Your task to perform on an android device: check data usage Image 0: 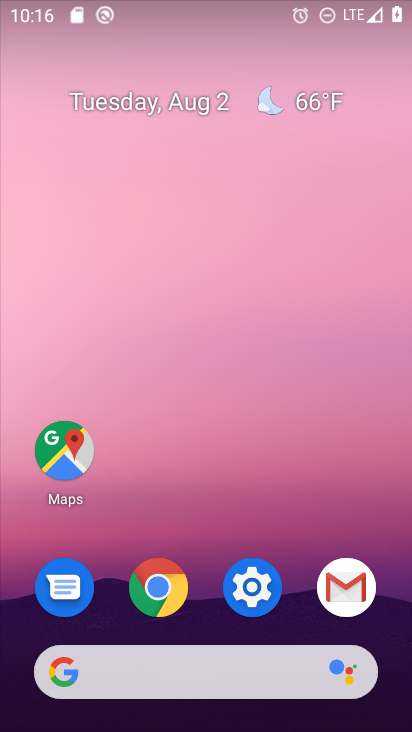
Step 0: click (245, 598)
Your task to perform on an android device: check data usage Image 1: 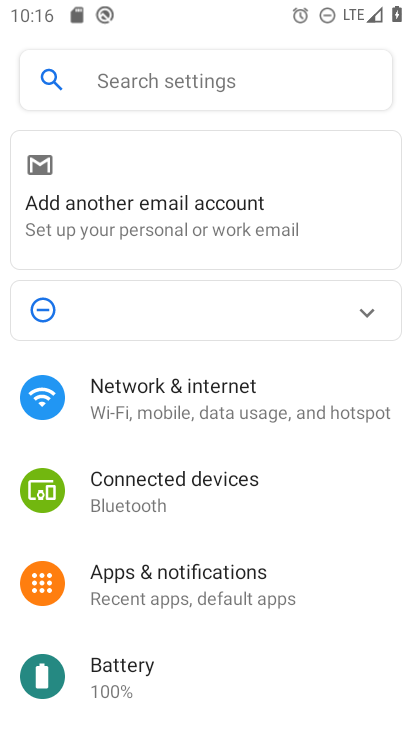
Step 1: click (108, 90)
Your task to perform on an android device: check data usage Image 2: 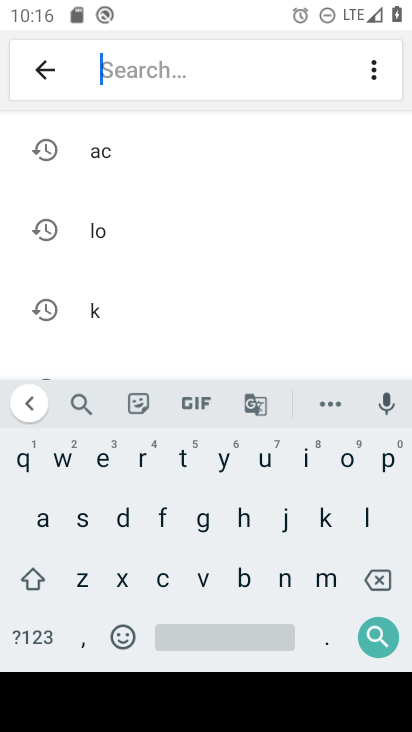
Step 2: click (125, 519)
Your task to perform on an android device: check data usage Image 3: 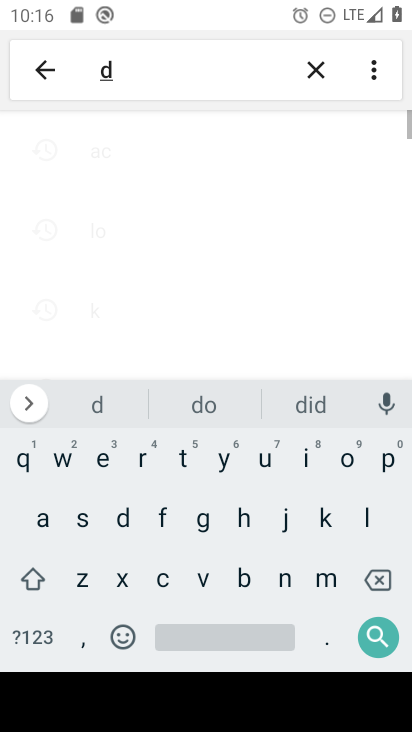
Step 3: click (40, 516)
Your task to perform on an android device: check data usage Image 4: 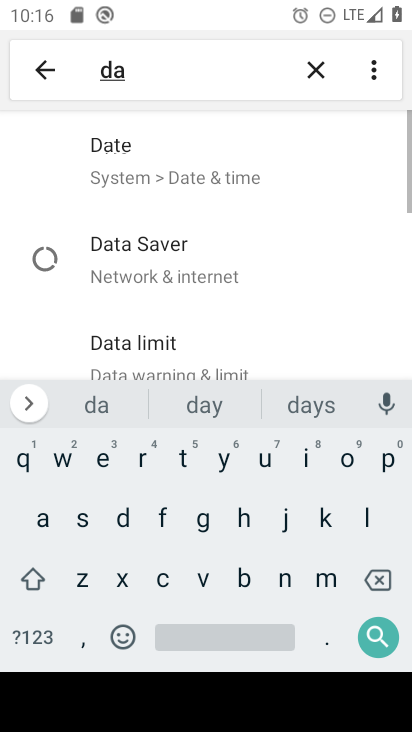
Step 4: click (185, 461)
Your task to perform on an android device: check data usage Image 5: 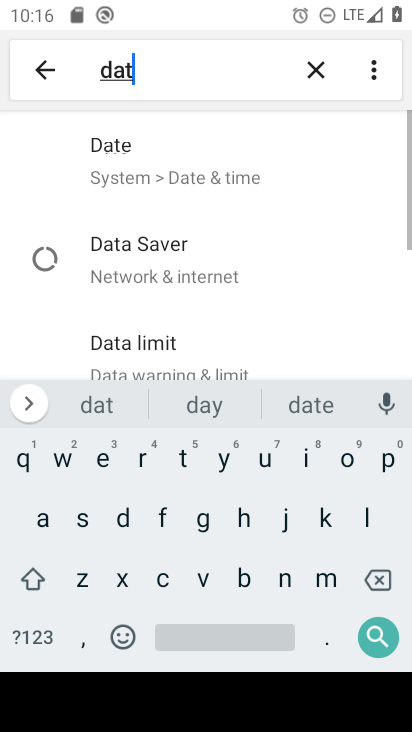
Step 5: click (39, 519)
Your task to perform on an android device: check data usage Image 6: 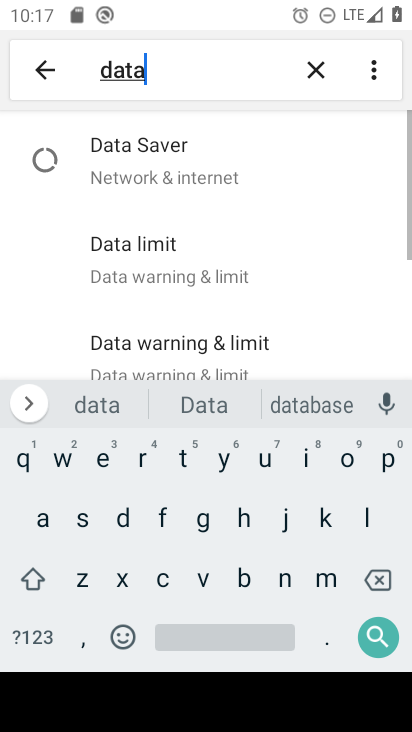
Step 6: click (240, 644)
Your task to perform on an android device: check data usage Image 7: 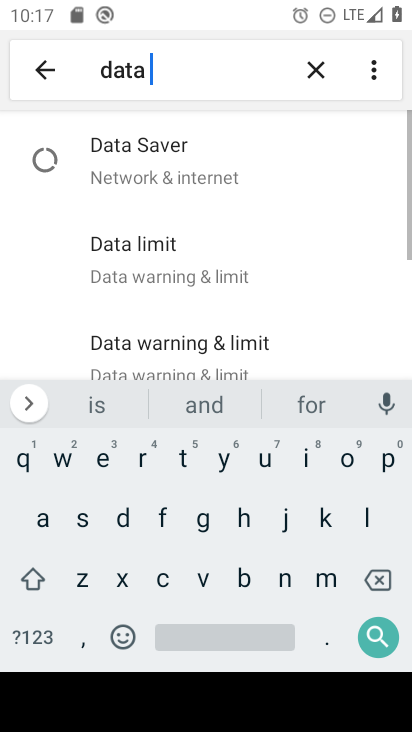
Step 7: click (254, 460)
Your task to perform on an android device: check data usage Image 8: 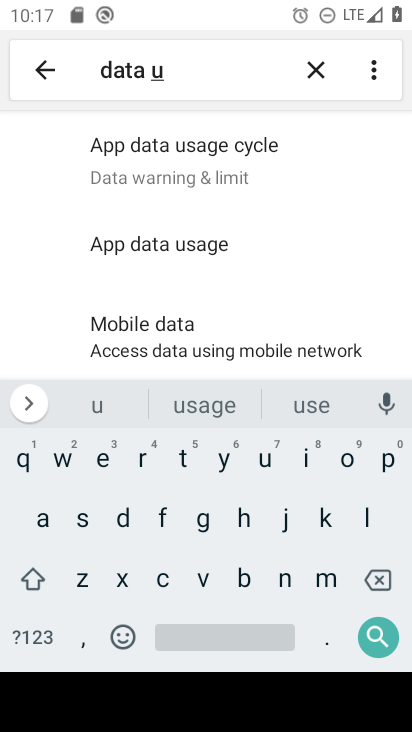
Step 8: click (162, 254)
Your task to perform on an android device: check data usage Image 9: 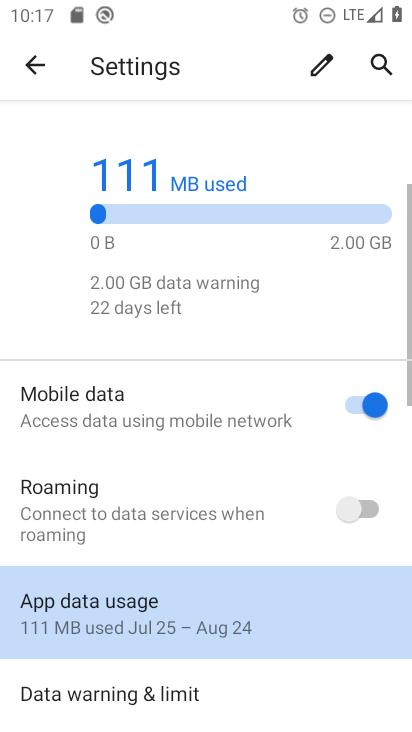
Step 9: click (151, 599)
Your task to perform on an android device: check data usage Image 10: 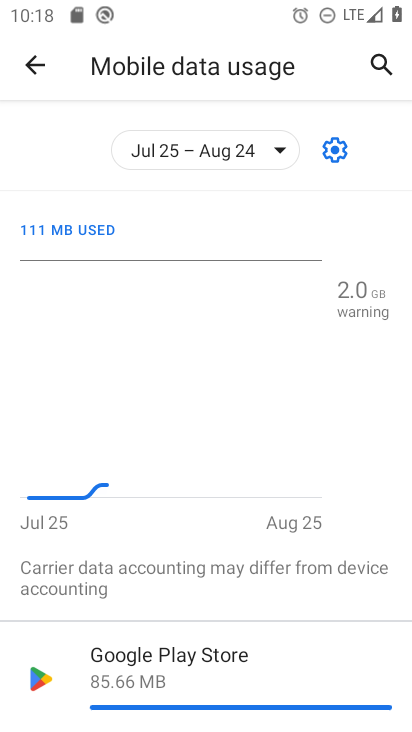
Step 10: task complete